Your task to perform on an android device: toggle improve location accuracy Image 0: 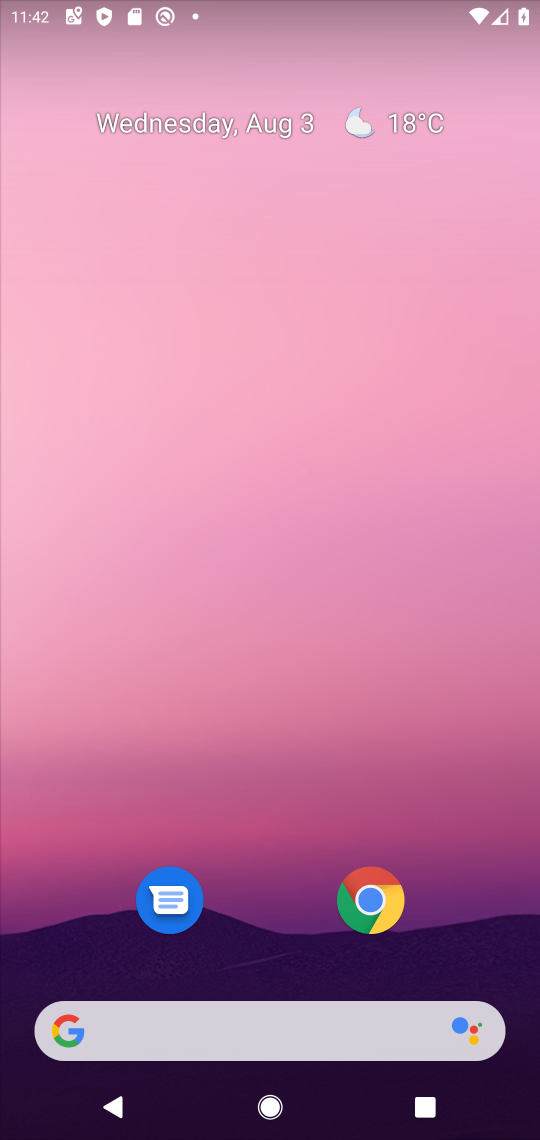
Step 0: press home button
Your task to perform on an android device: toggle improve location accuracy Image 1: 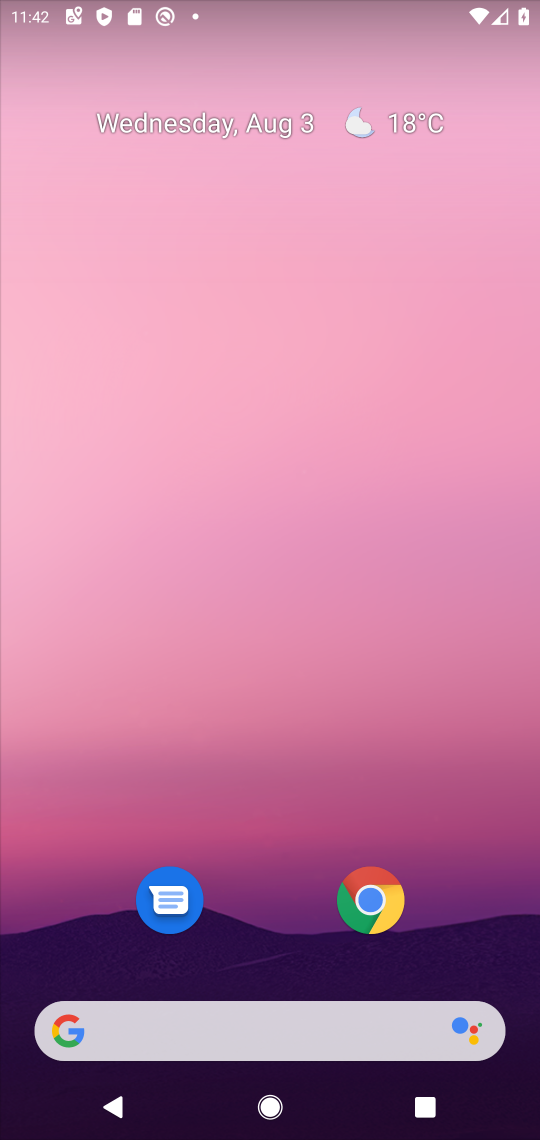
Step 1: drag from (274, 913) to (425, 0)
Your task to perform on an android device: toggle improve location accuracy Image 2: 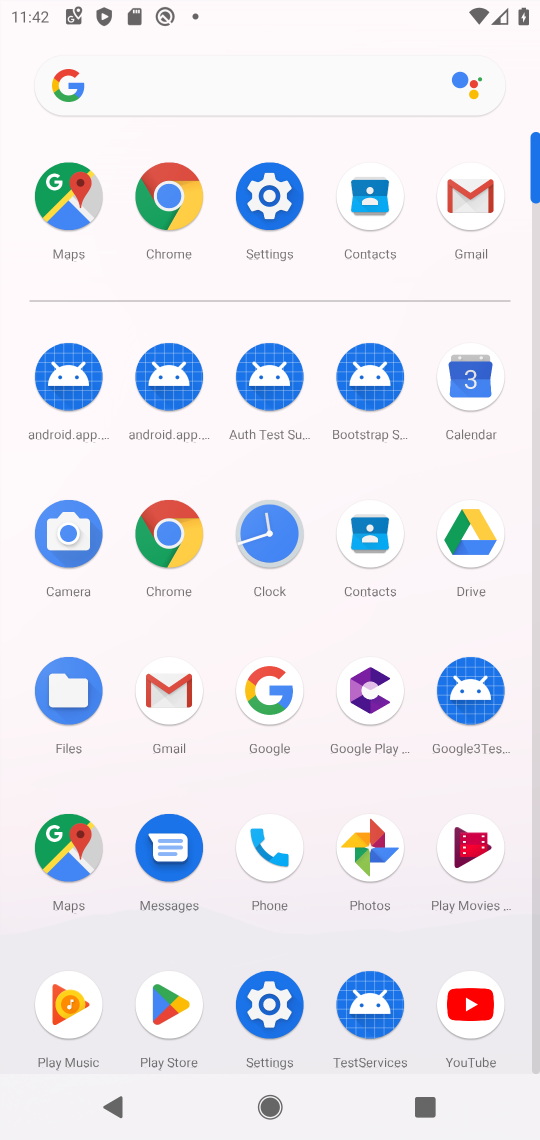
Step 2: click (264, 206)
Your task to perform on an android device: toggle improve location accuracy Image 3: 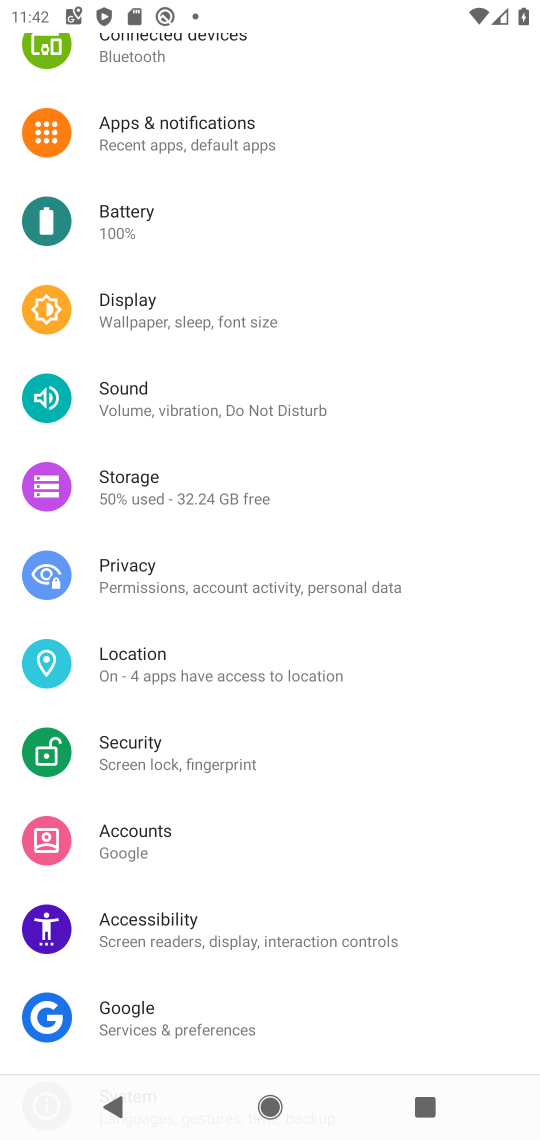
Step 3: click (169, 666)
Your task to perform on an android device: toggle improve location accuracy Image 4: 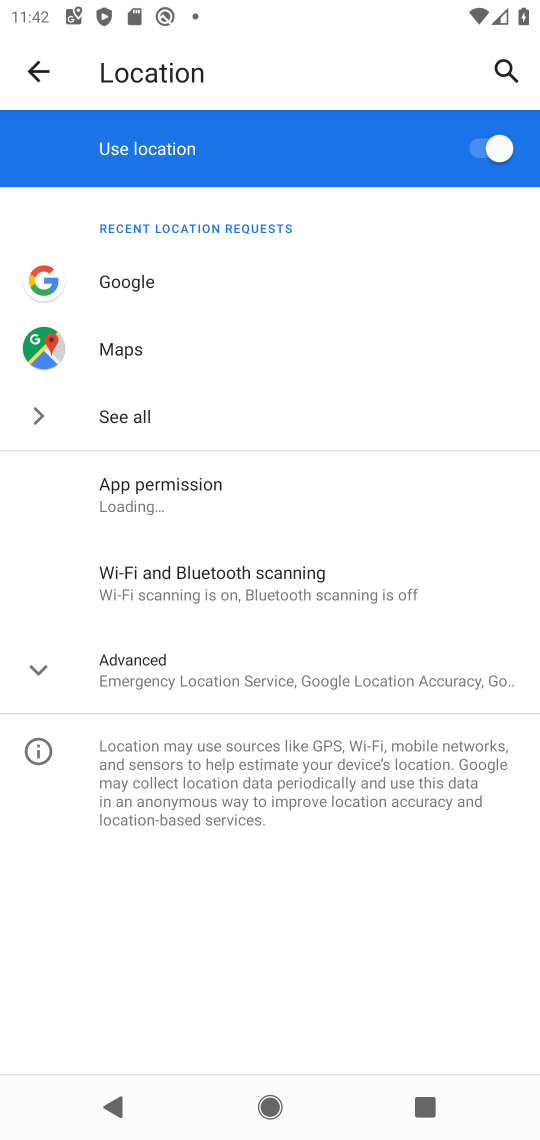
Step 4: click (38, 671)
Your task to perform on an android device: toggle improve location accuracy Image 5: 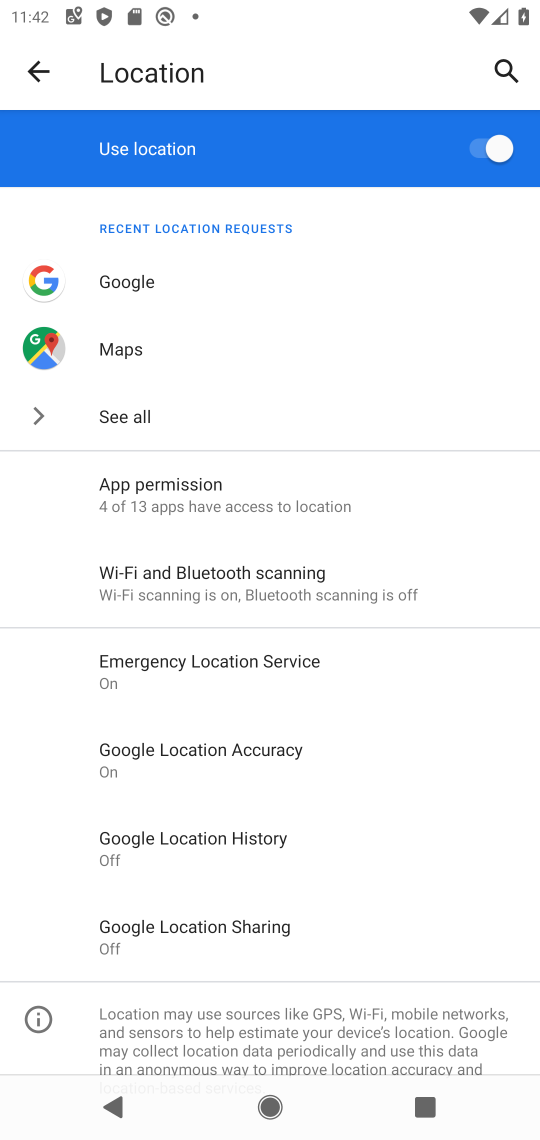
Step 5: click (239, 754)
Your task to perform on an android device: toggle improve location accuracy Image 6: 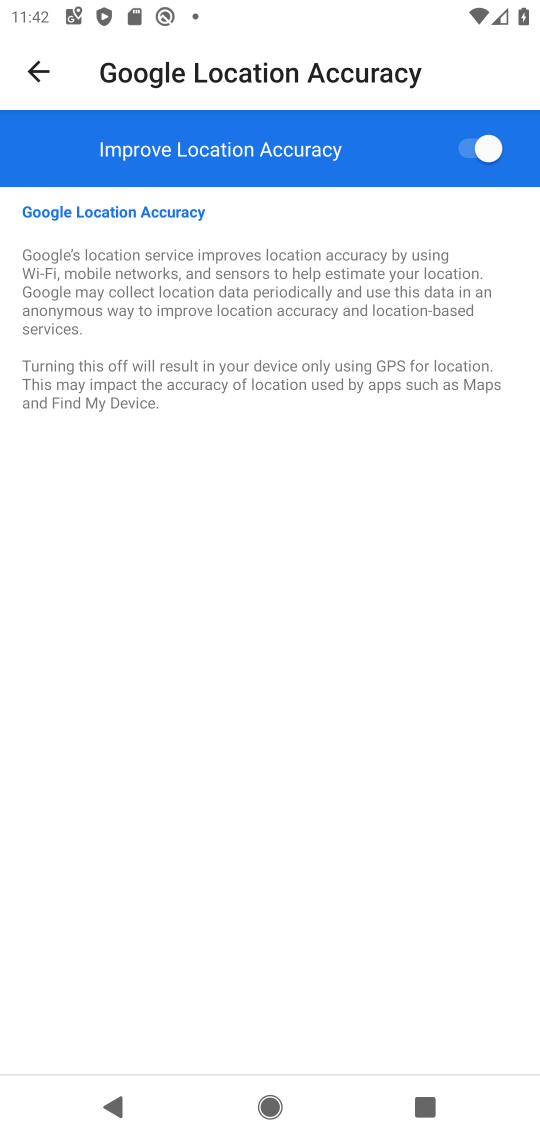
Step 6: click (481, 152)
Your task to perform on an android device: toggle improve location accuracy Image 7: 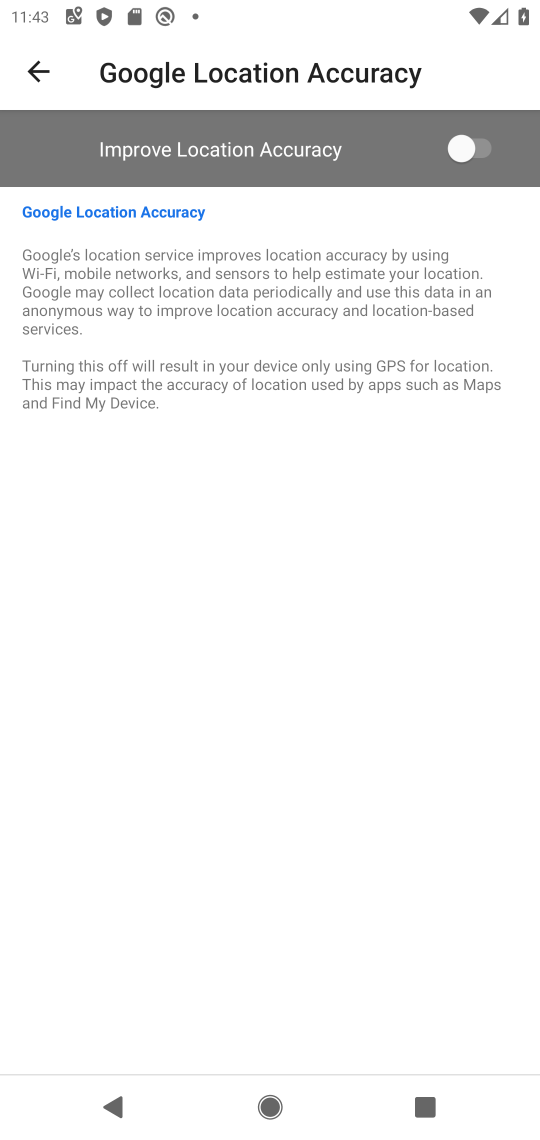
Step 7: task complete